Your task to perform on an android device: Set the phone to "Do not disturb". Image 0: 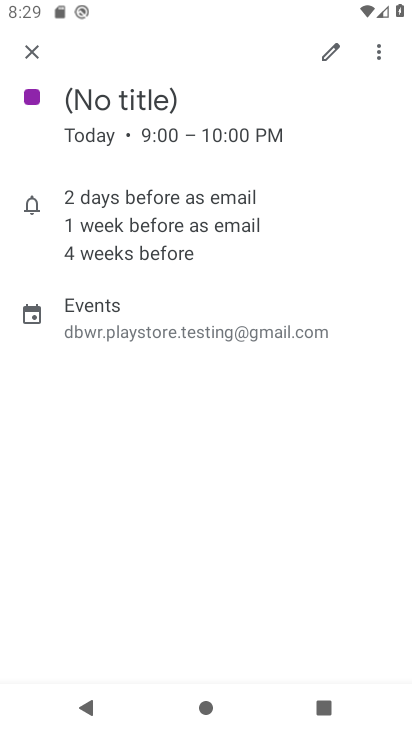
Step 0: press home button
Your task to perform on an android device: Set the phone to "Do not disturb". Image 1: 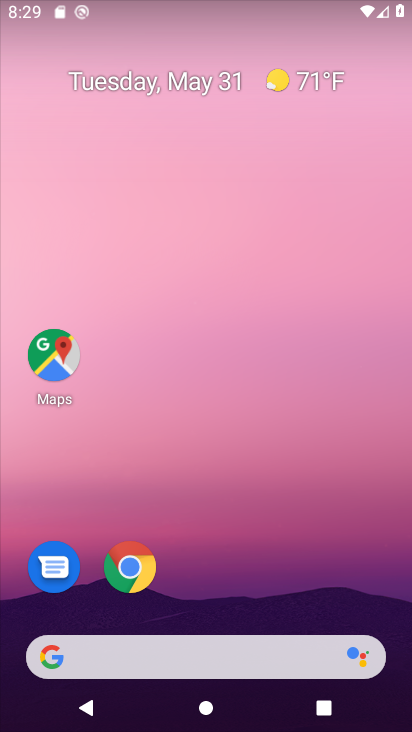
Step 1: drag from (114, 633) to (219, 107)
Your task to perform on an android device: Set the phone to "Do not disturb". Image 2: 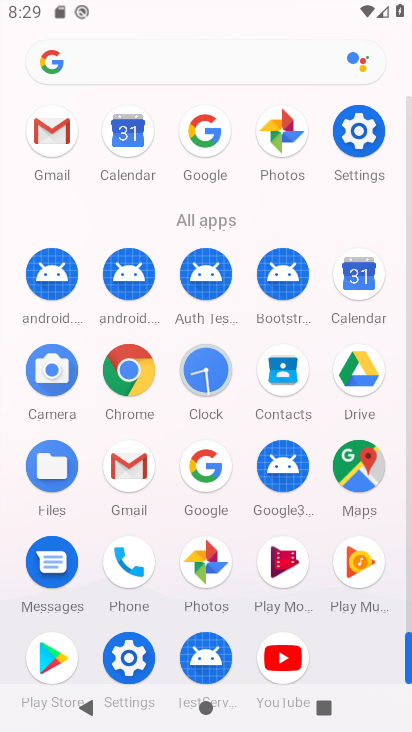
Step 2: click (367, 133)
Your task to perform on an android device: Set the phone to "Do not disturb". Image 3: 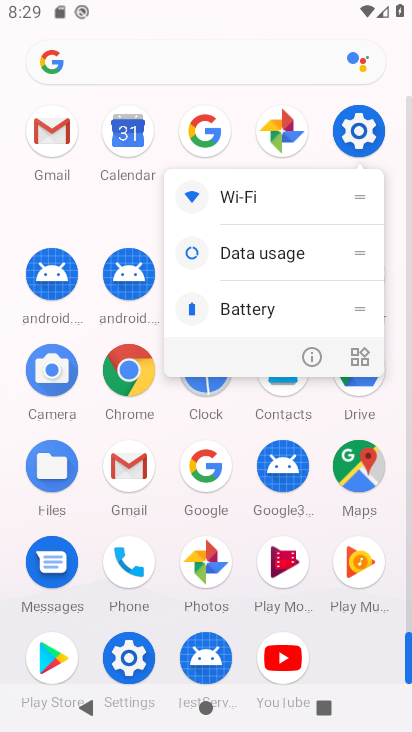
Step 3: click (350, 140)
Your task to perform on an android device: Set the phone to "Do not disturb". Image 4: 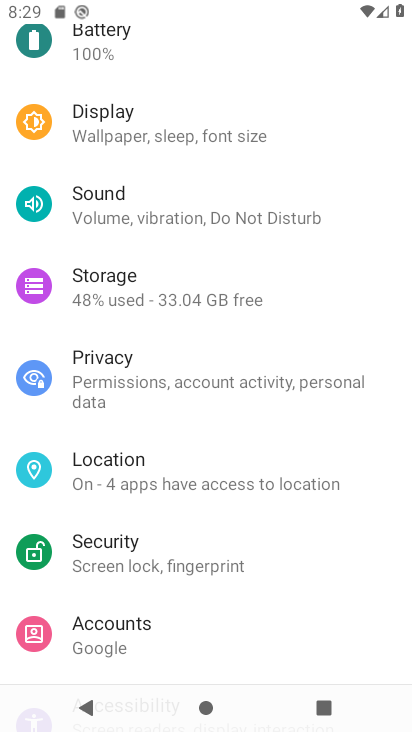
Step 4: click (264, 210)
Your task to perform on an android device: Set the phone to "Do not disturb". Image 5: 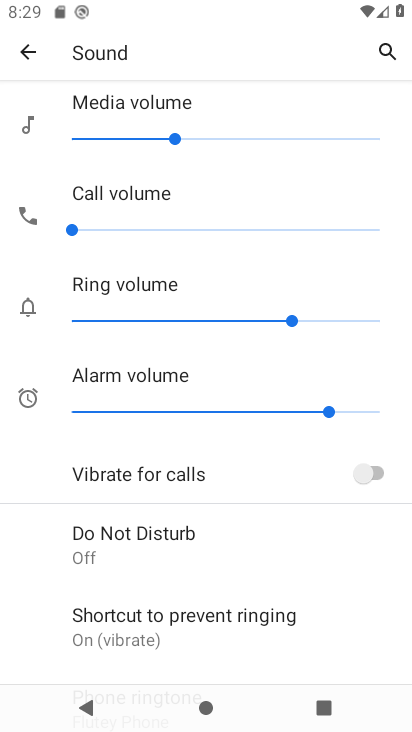
Step 5: click (106, 523)
Your task to perform on an android device: Set the phone to "Do not disturb". Image 6: 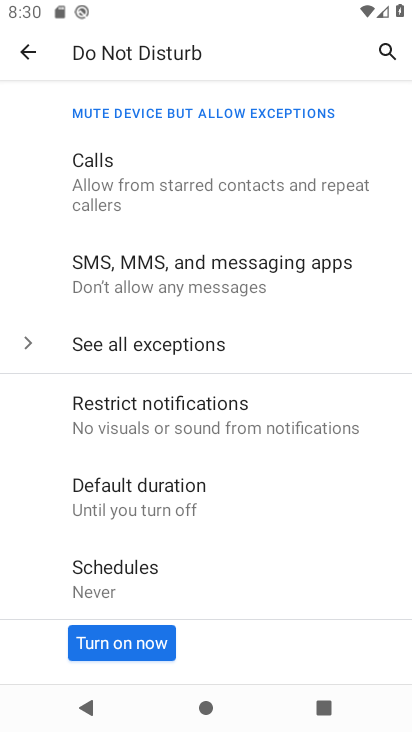
Step 6: click (96, 650)
Your task to perform on an android device: Set the phone to "Do not disturb". Image 7: 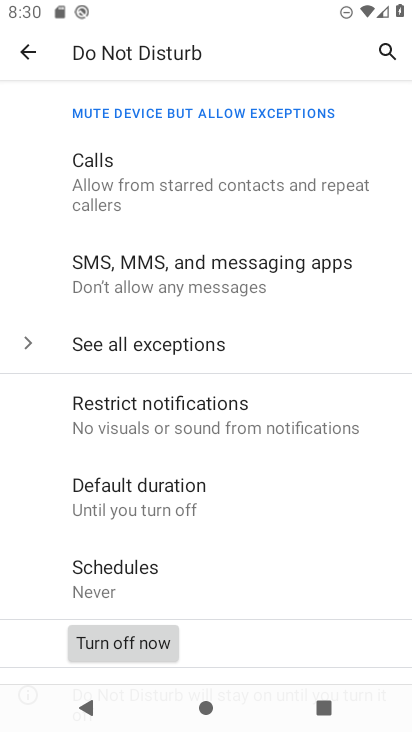
Step 7: task complete